Your task to perform on an android device: Go to notification settings Image 0: 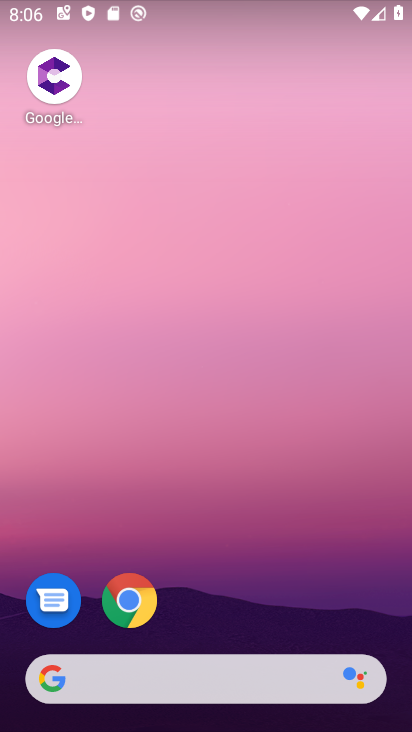
Step 0: drag from (257, 538) to (241, 5)
Your task to perform on an android device: Go to notification settings Image 1: 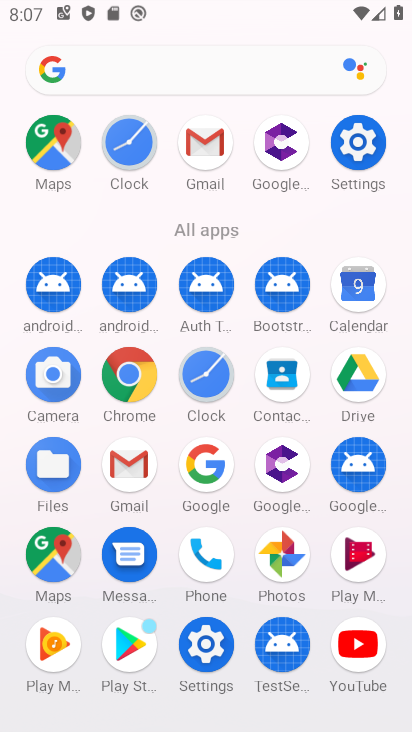
Step 1: click (205, 645)
Your task to perform on an android device: Go to notification settings Image 2: 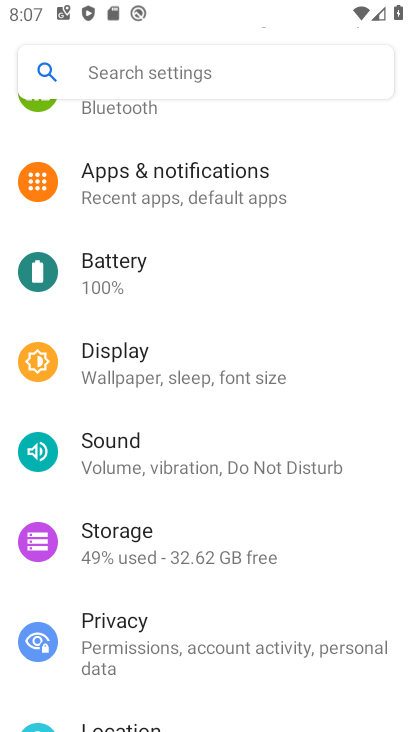
Step 2: click (190, 185)
Your task to perform on an android device: Go to notification settings Image 3: 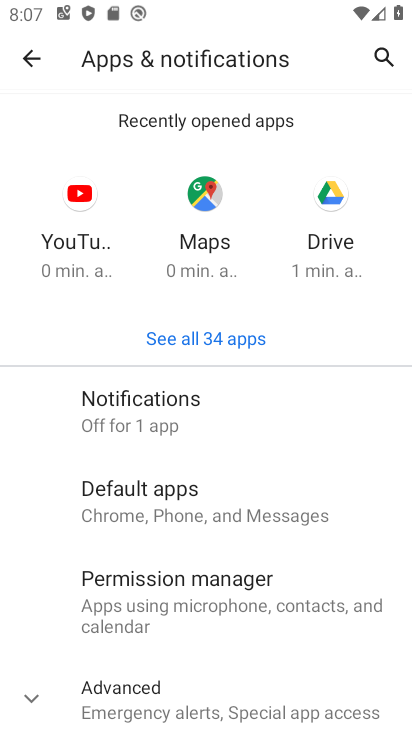
Step 3: click (174, 425)
Your task to perform on an android device: Go to notification settings Image 4: 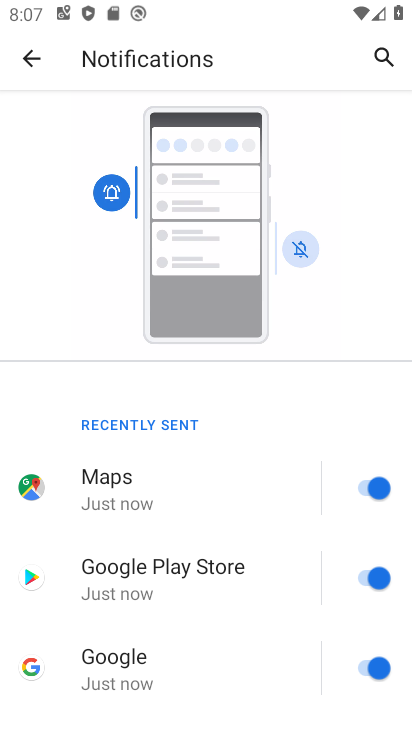
Step 4: drag from (218, 568) to (261, 152)
Your task to perform on an android device: Go to notification settings Image 5: 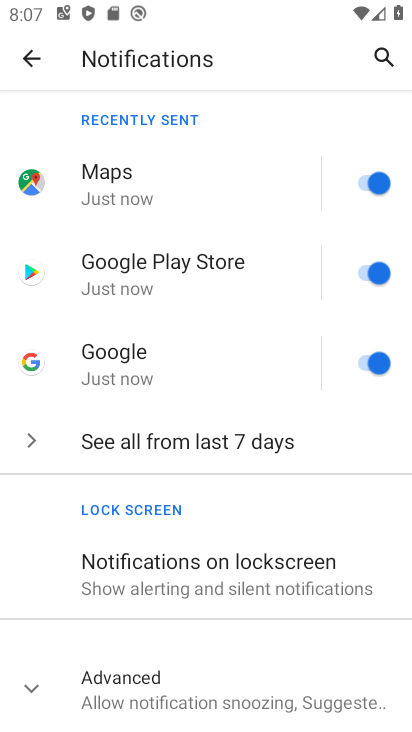
Step 5: click (45, 683)
Your task to perform on an android device: Go to notification settings Image 6: 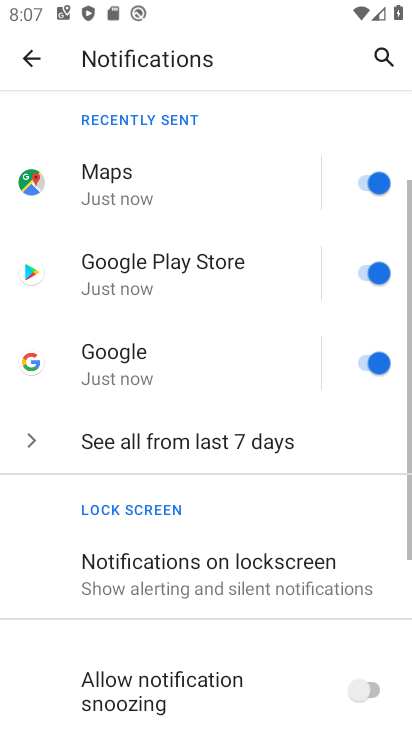
Step 6: task complete